Your task to perform on an android device: turn on improve location accuracy Image 0: 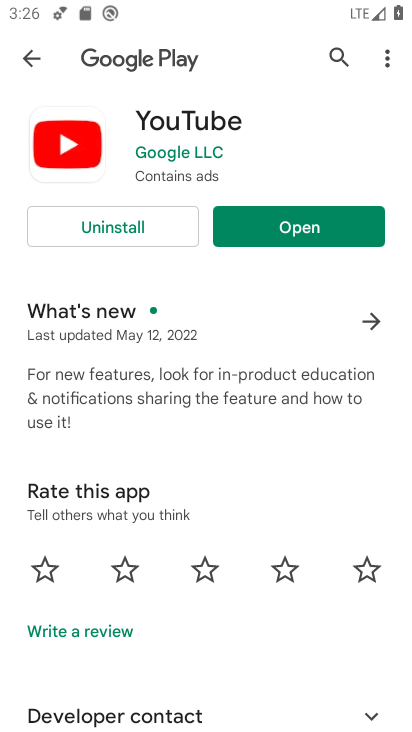
Step 0: press home button
Your task to perform on an android device: turn on improve location accuracy Image 1: 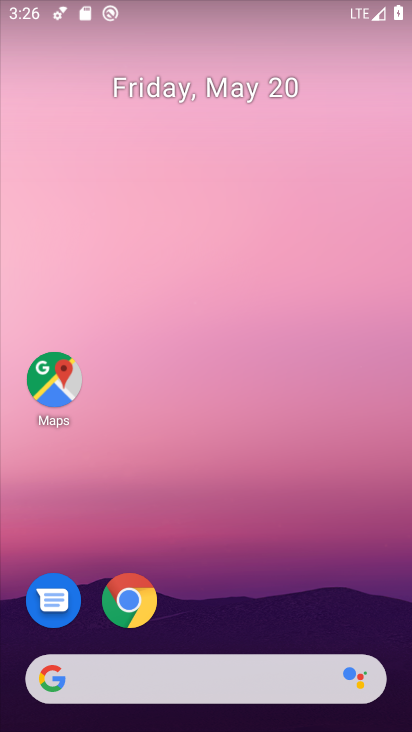
Step 1: drag from (373, 610) to (337, 242)
Your task to perform on an android device: turn on improve location accuracy Image 2: 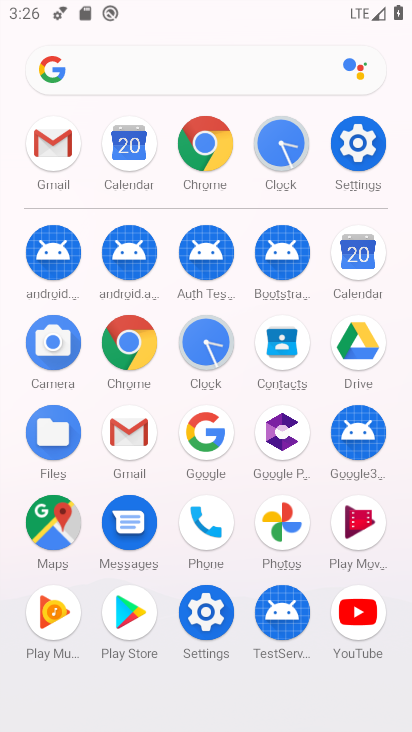
Step 2: click (213, 631)
Your task to perform on an android device: turn on improve location accuracy Image 3: 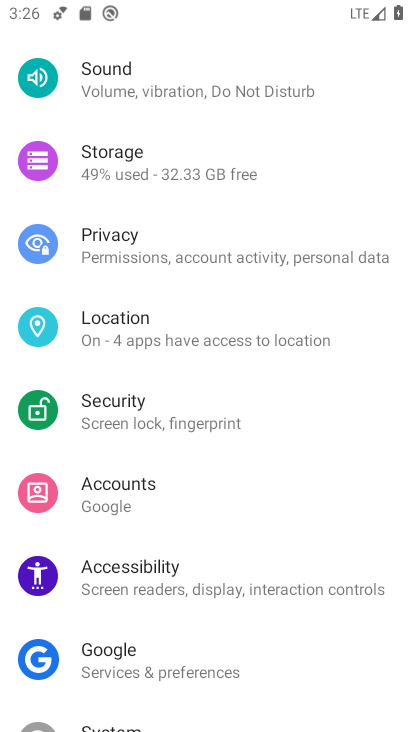
Step 3: drag from (346, 642) to (335, 524)
Your task to perform on an android device: turn on improve location accuracy Image 4: 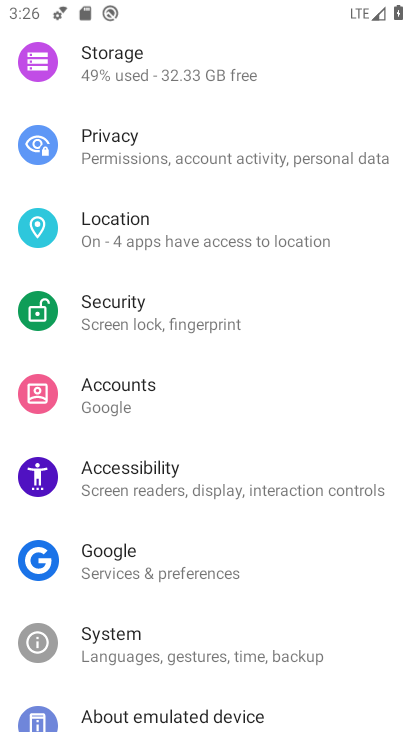
Step 4: drag from (366, 651) to (351, 541)
Your task to perform on an android device: turn on improve location accuracy Image 5: 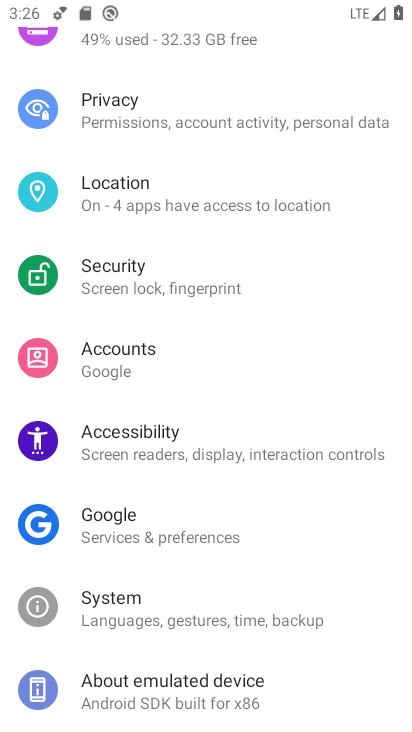
Step 5: drag from (335, 505) to (334, 572)
Your task to perform on an android device: turn on improve location accuracy Image 6: 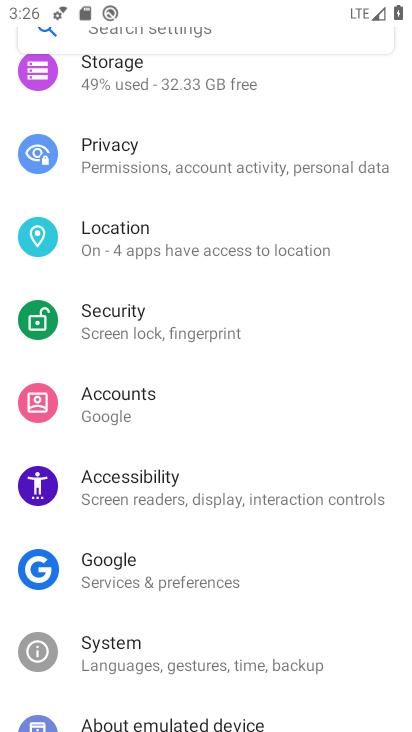
Step 6: drag from (330, 491) to (330, 565)
Your task to perform on an android device: turn on improve location accuracy Image 7: 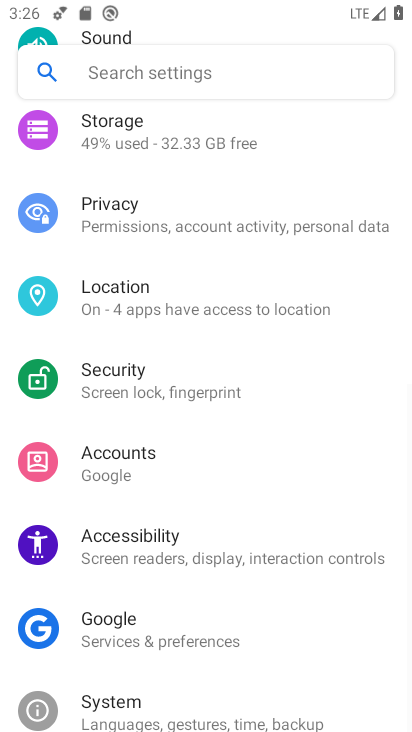
Step 7: drag from (326, 509) to (325, 580)
Your task to perform on an android device: turn on improve location accuracy Image 8: 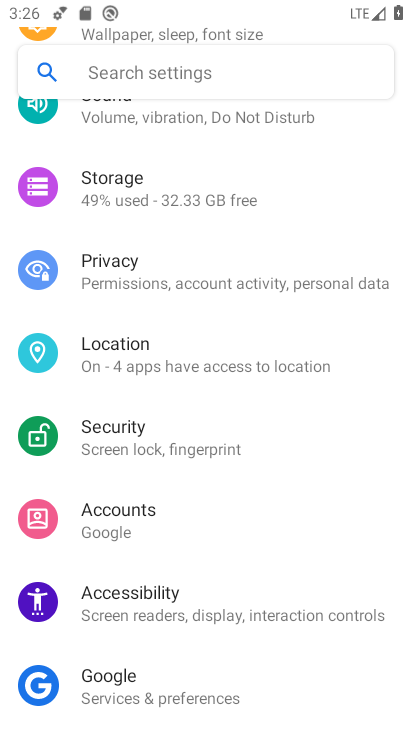
Step 8: drag from (317, 515) to (319, 575)
Your task to perform on an android device: turn on improve location accuracy Image 9: 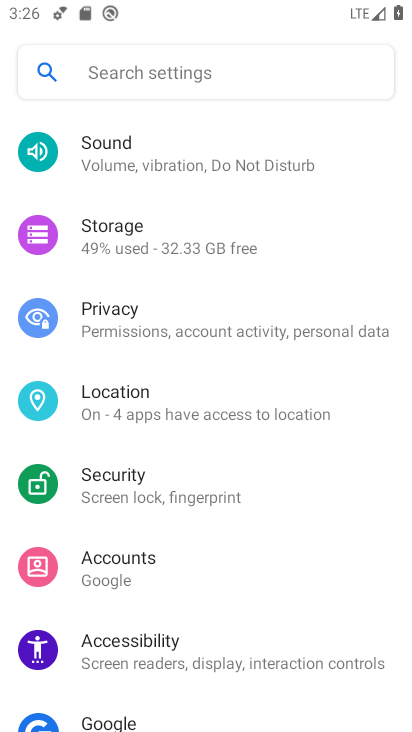
Step 9: drag from (308, 476) to (308, 554)
Your task to perform on an android device: turn on improve location accuracy Image 10: 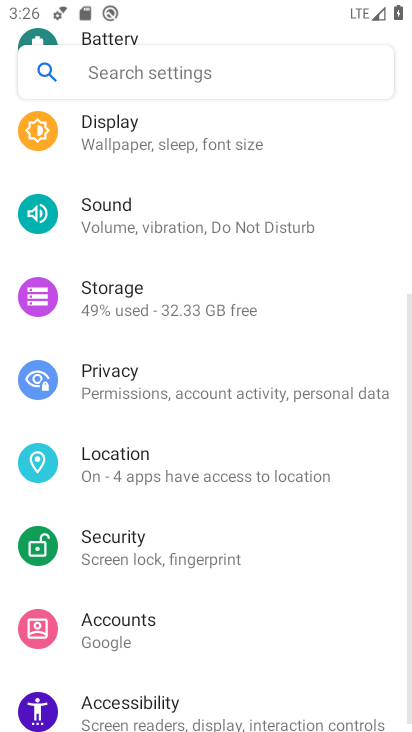
Step 10: drag from (317, 501) to (317, 562)
Your task to perform on an android device: turn on improve location accuracy Image 11: 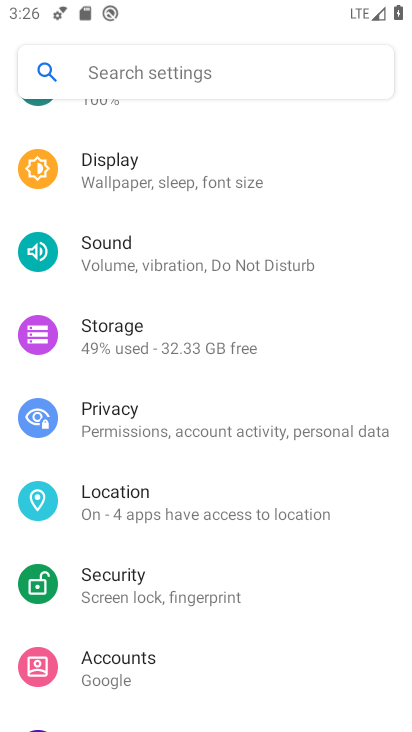
Step 11: click (253, 514)
Your task to perform on an android device: turn on improve location accuracy Image 12: 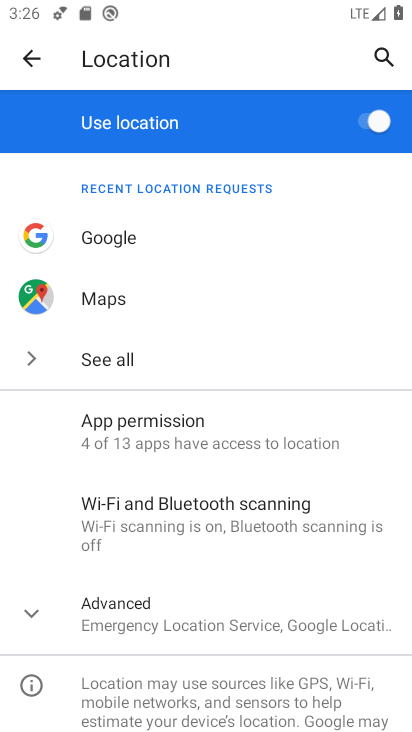
Step 12: drag from (329, 494) to (309, 381)
Your task to perform on an android device: turn on improve location accuracy Image 13: 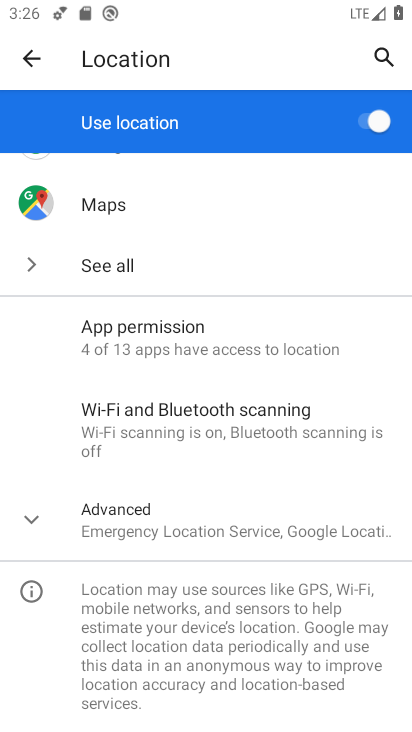
Step 13: click (306, 552)
Your task to perform on an android device: turn on improve location accuracy Image 14: 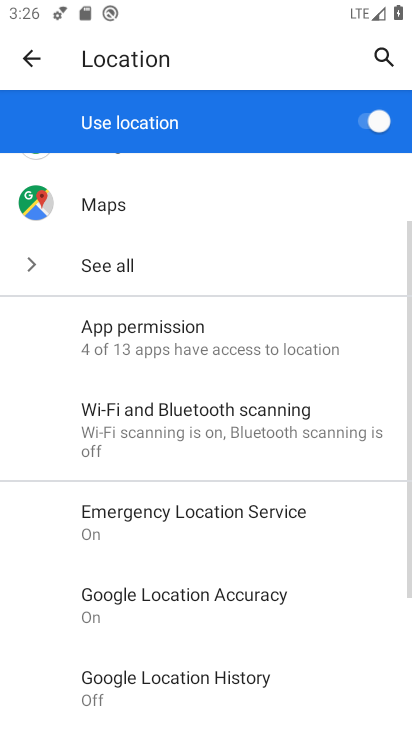
Step 14: drag from (326, 573) to (328, 485)
Your task to perform on an android device: turn on improve location accuracy Image 15: 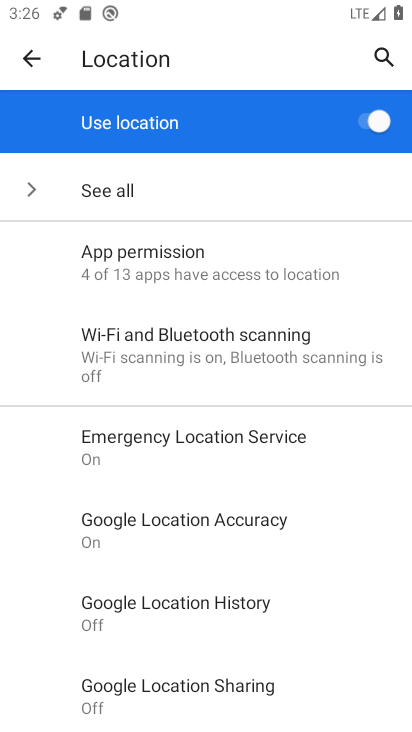
Step 15: drag from (352, 632) to (334, 528)
Your task to perform on an android device: turn on improve location accuracy Image 16: 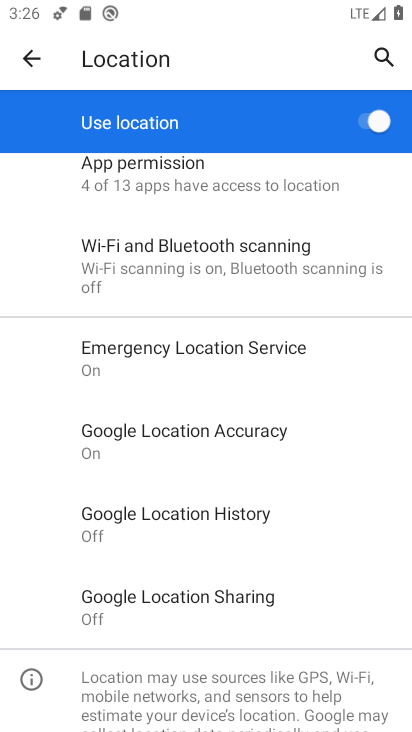
Step 16: click (235, 445)
Your task to perform on an android device: turn on improve location accuracy Image 17: 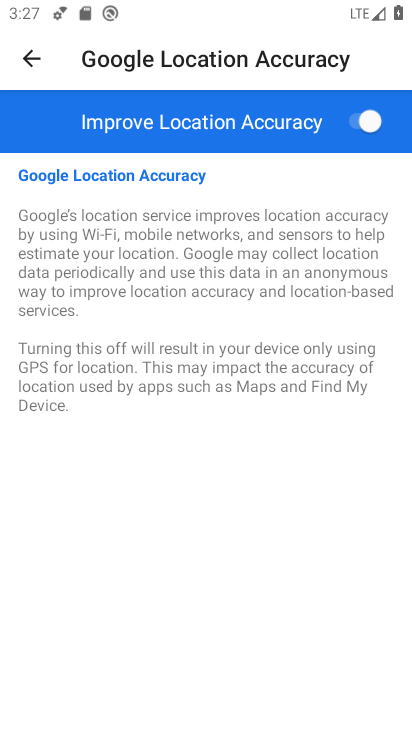
Step 17: task complete